Your task to perform on an android device: turn off location history Image 0: 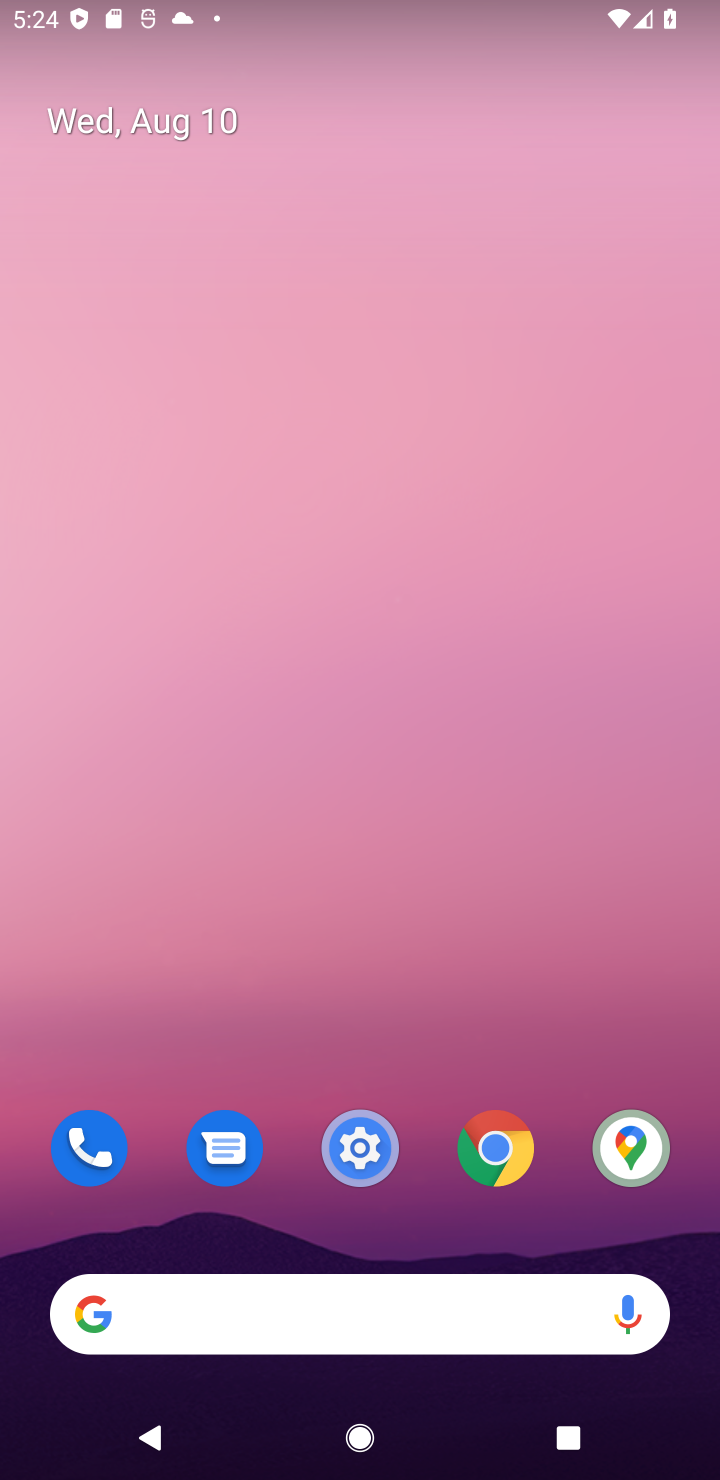
Step 0: click (369, 1146)
Your task to perform on an android device: turn off location history Image 1: 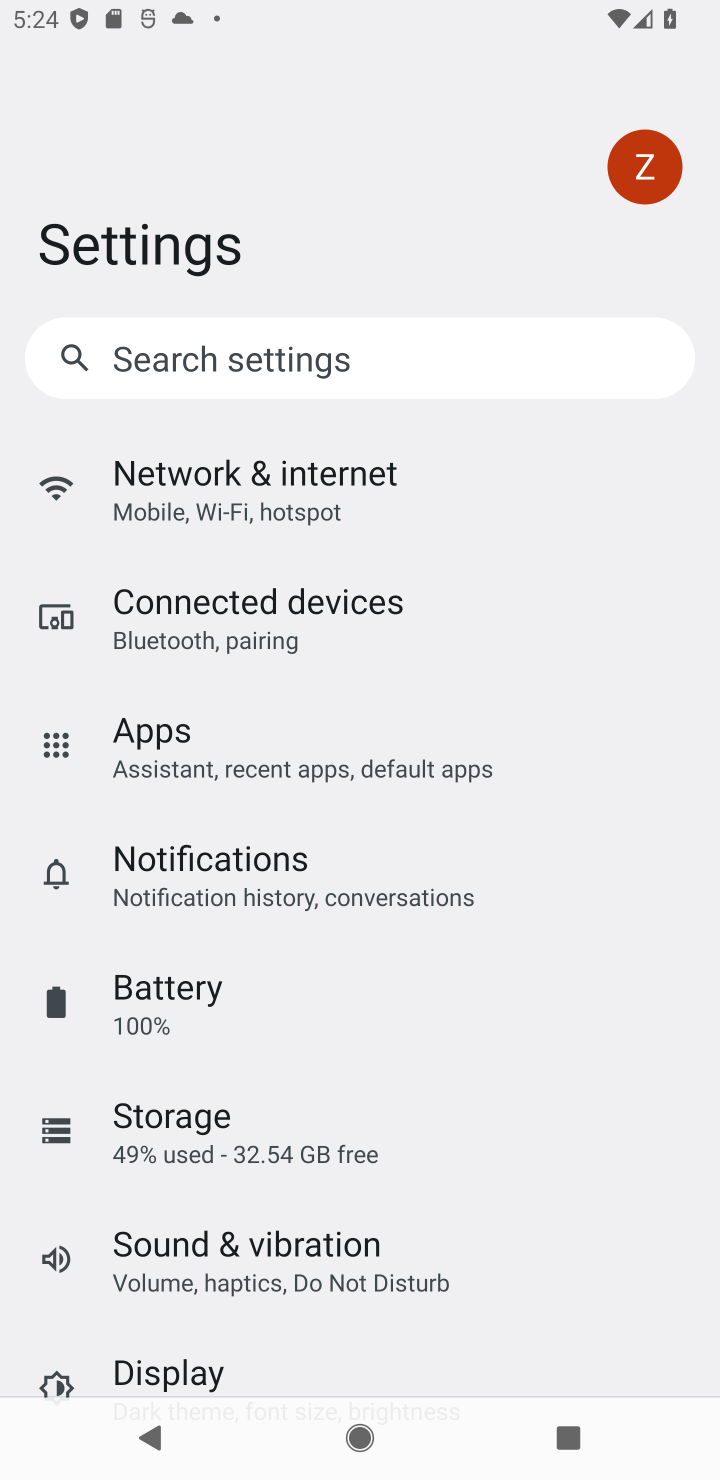
Step 1: drag from (538, 1086) to (493, 495)
Your task to perform on an android device: turn off location history Image 2: 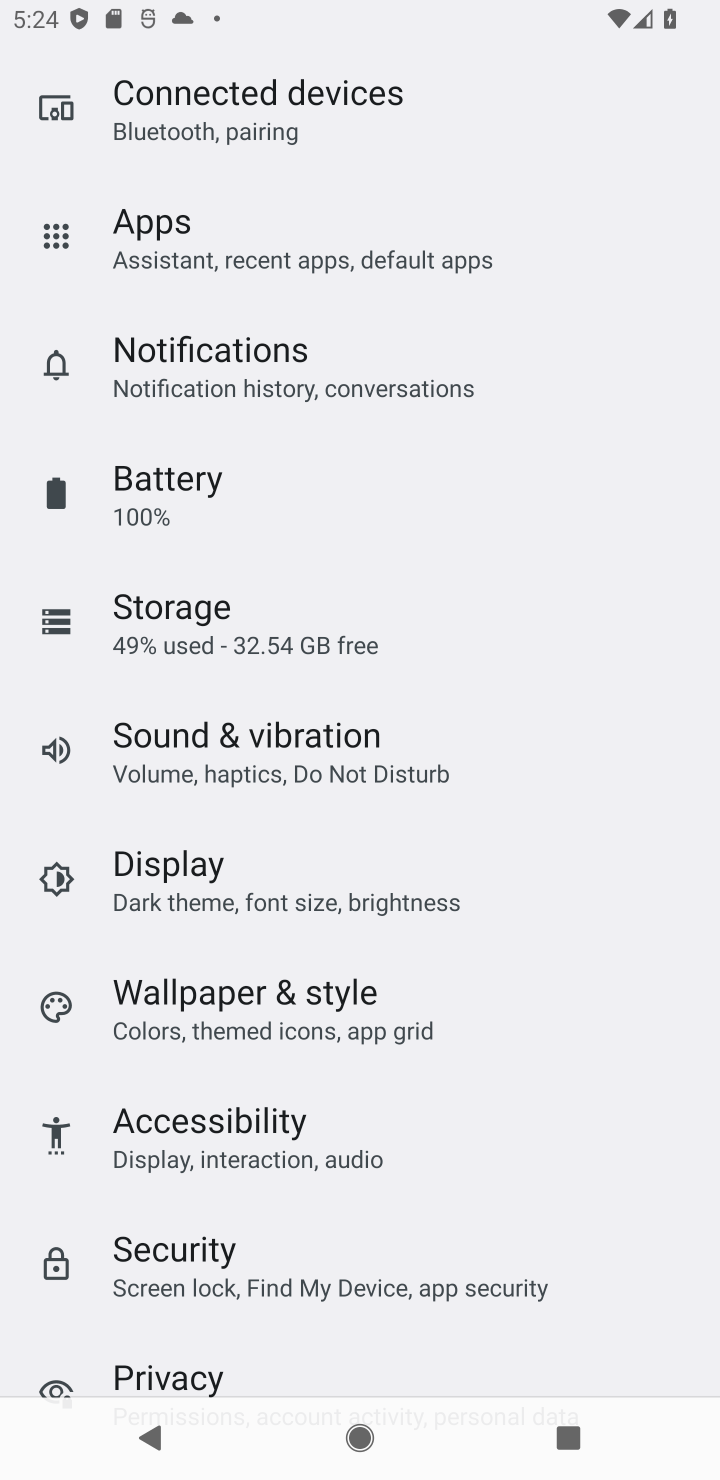
Step 2: drag from (494, 1132) to (438, 671)
Your task to perform on an android device: turn off location history Image 3: 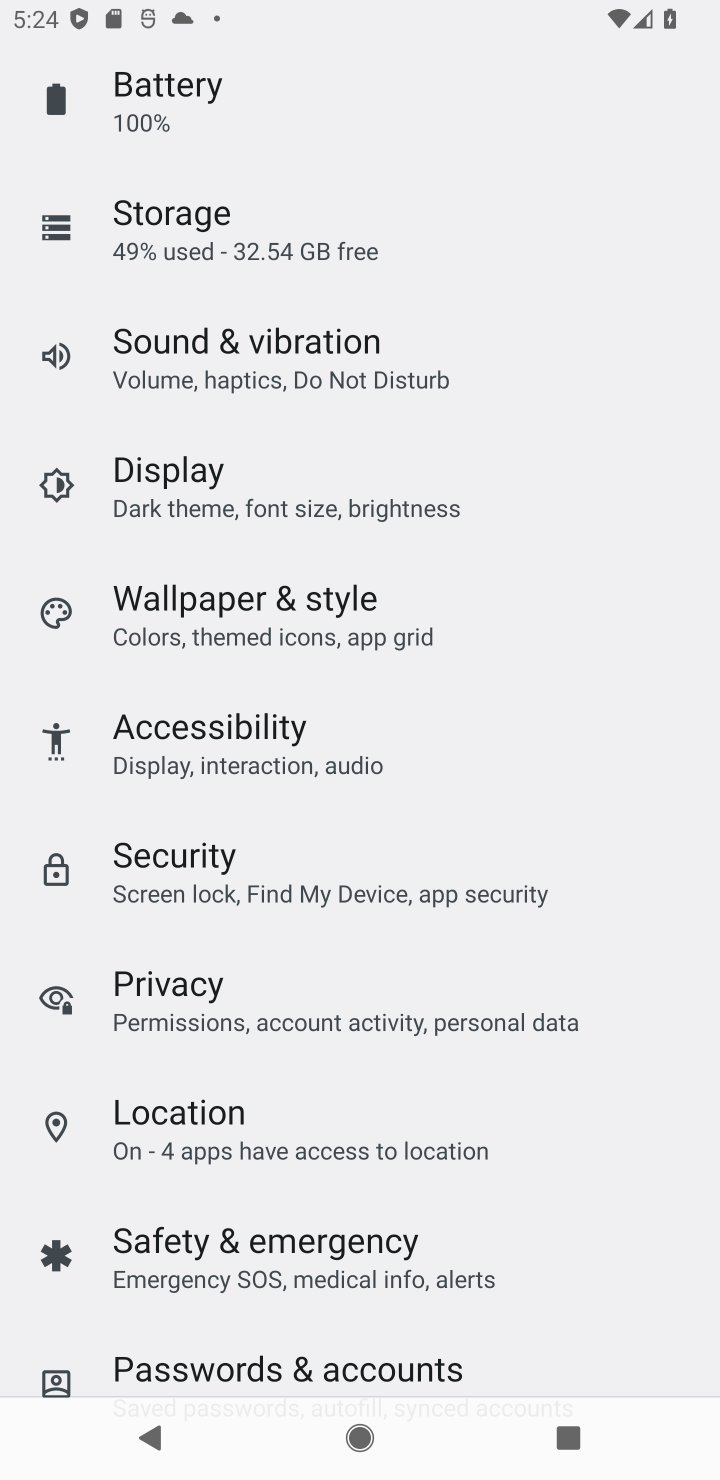
Step 3: click (130, 1113)
Your task to perform on an android device: turn off location history Image 4: 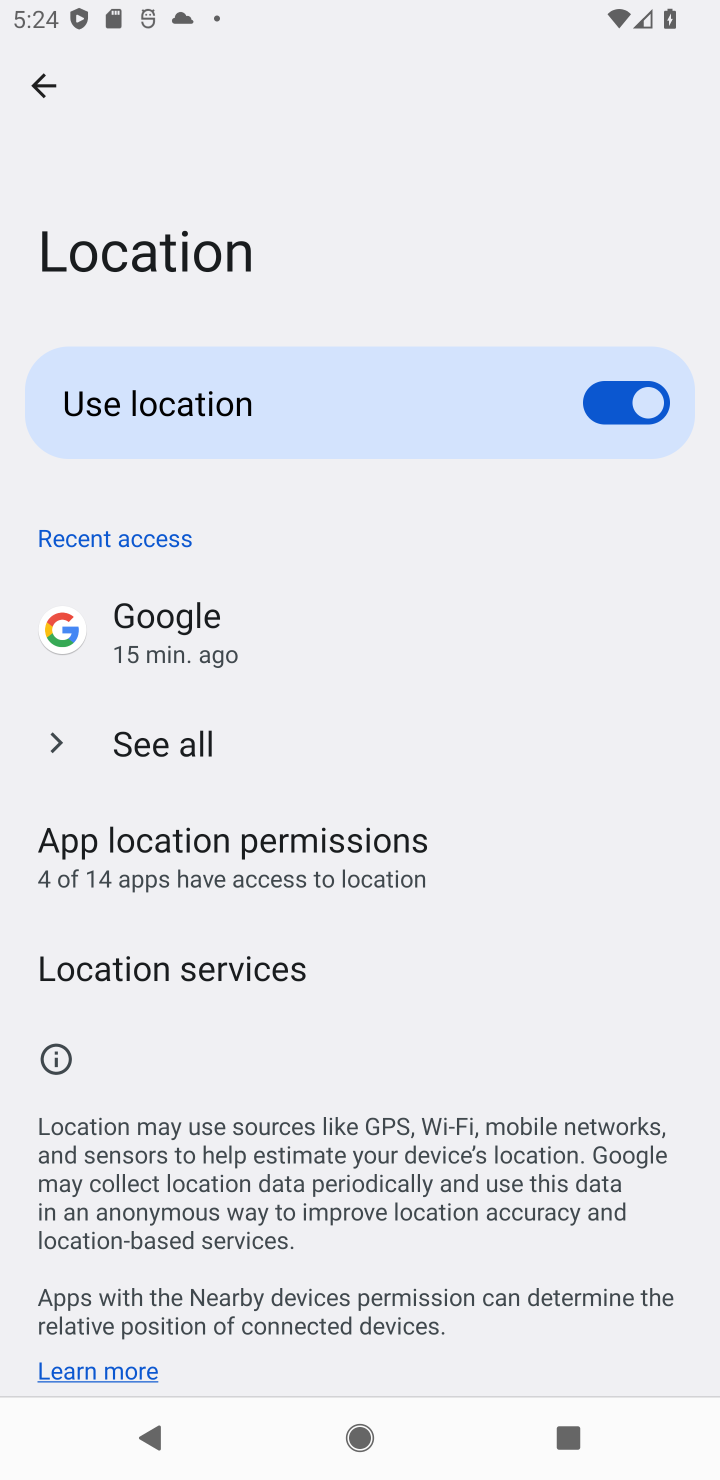
Step 4: click (137, 981)
Your task to perform on an android device: turn off location history Image 5: 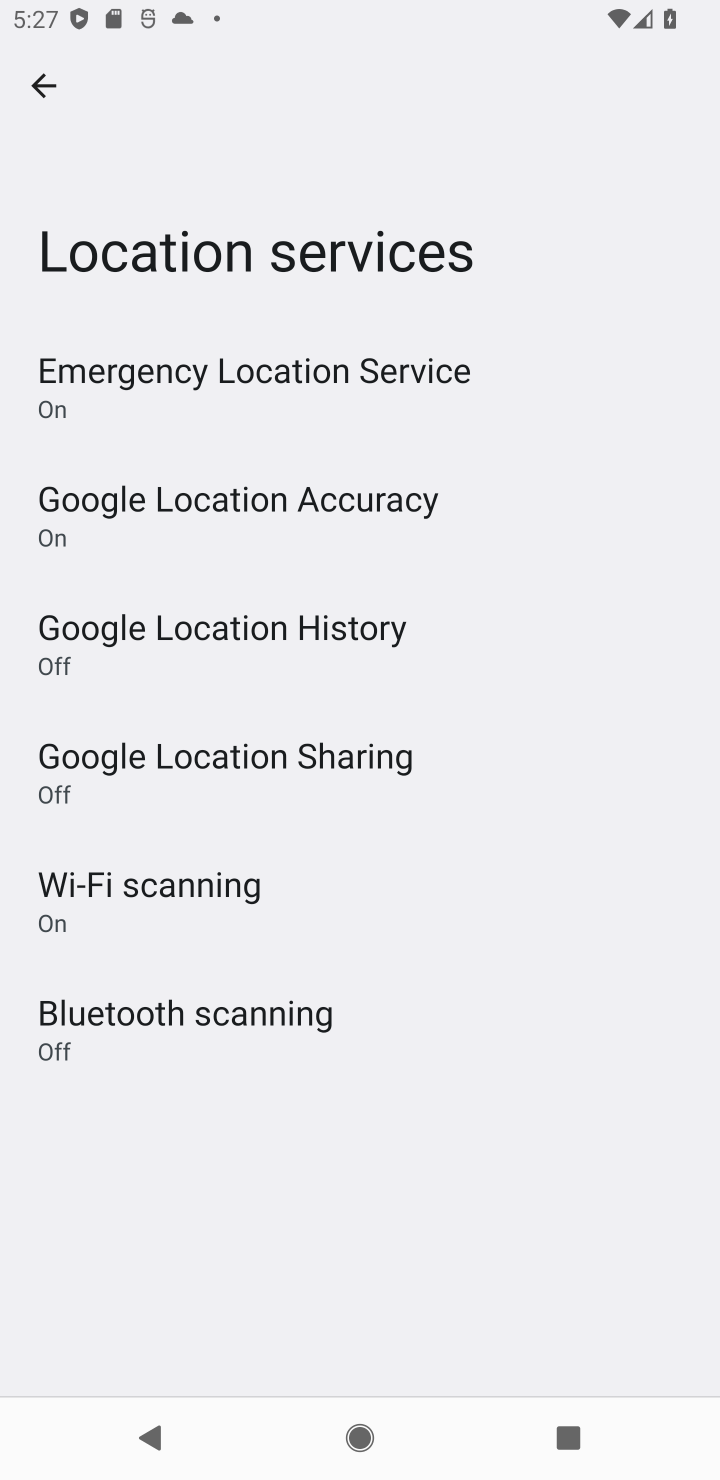
Step 5: task complete